Your task to perform on an android device: Open CNN.com Image 0: 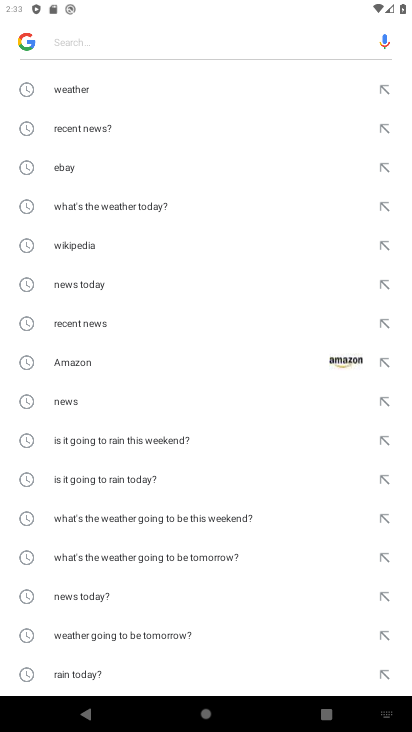
Step 0: press home button
Your task to perform on an android device: Open CNN.com Image 1: 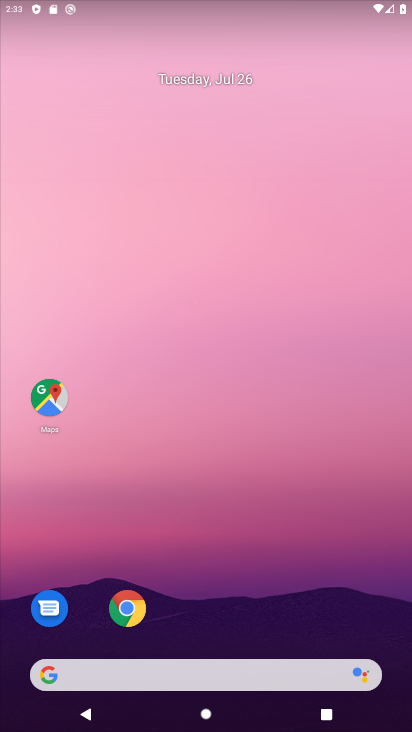
Step 1: click (131, 609)
Your task to perform on an android device: Open CNN.com Image 2: 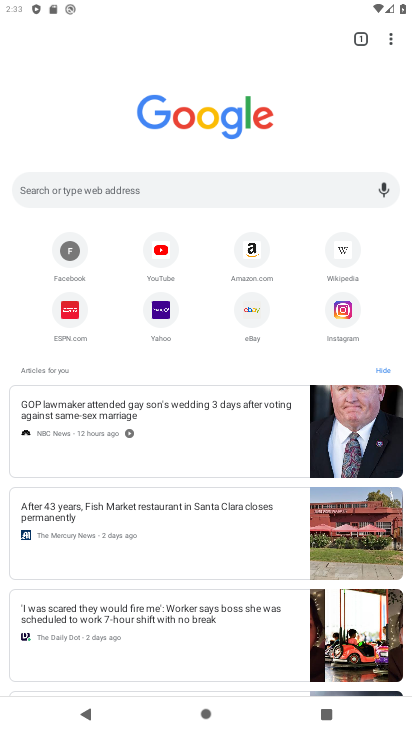
Step 2: click (174, 191)
Your task to perform on an android device: Open CNN.com Image 3: 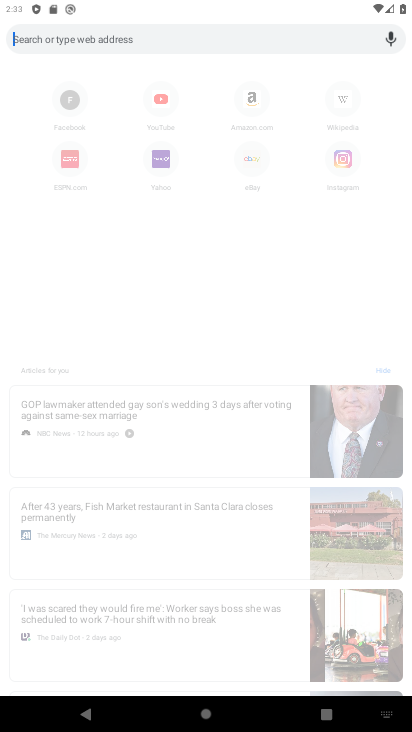
Step 3: type "CNN.com"
Your task to perform on an android device: Open CNN.com Image 4: 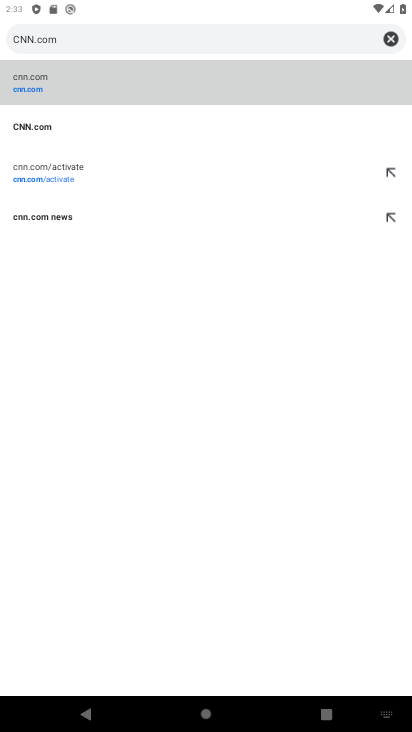
Step 4: click (295, 83)
Your task to perform on an android device: Open CNN.com Image 5: 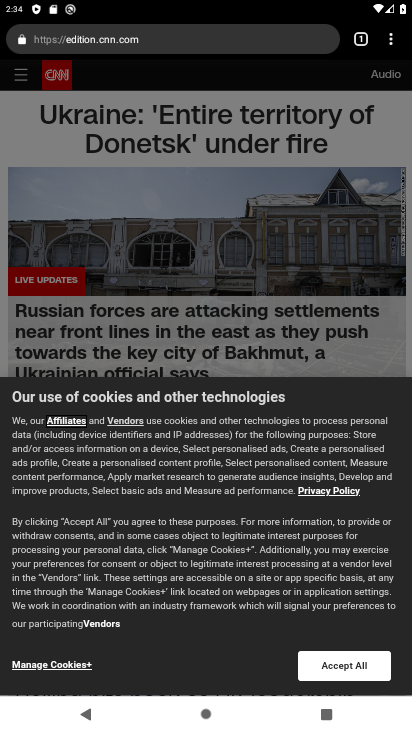
Step 5: task complete